Your task to perform on an android device: clear history in the chrome app Image 0: 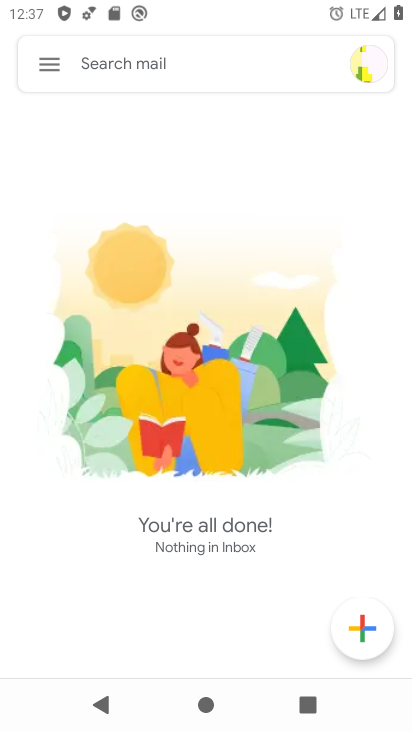
Step 0: press home button
Your task to perform on an android device: clear history in the chrome app Image 1: 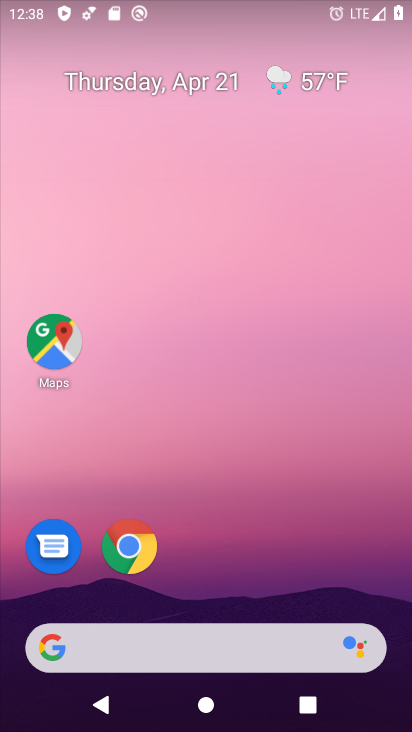
Step 1: click (125, 545)
Your task to perform on an android device: clear history in the chrome app Image 2: 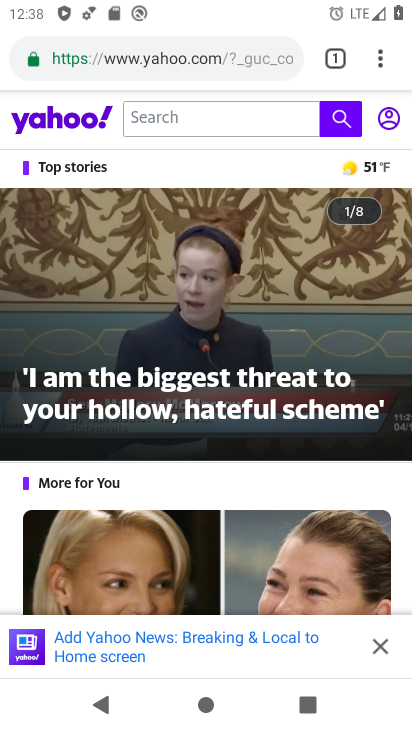
Step 2: click (370, 68)
Your task to perform on an android device: clear history in the chrome app Image 3: 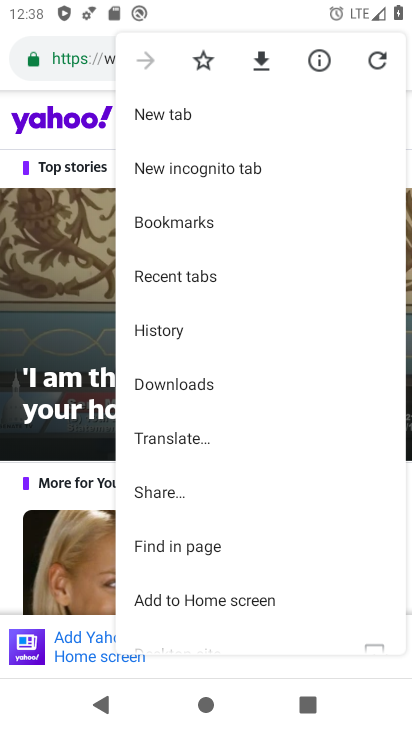
Step 3: click (183, 322)
Your task to perform on an android device: clear history in the chrome app Image 4: 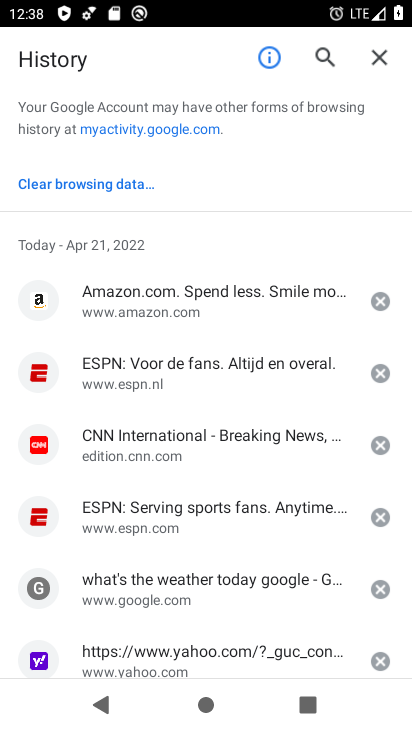
Step 4: click (72, 180)
Your task to perform on an android device: clear history in the chrome app Image 5: 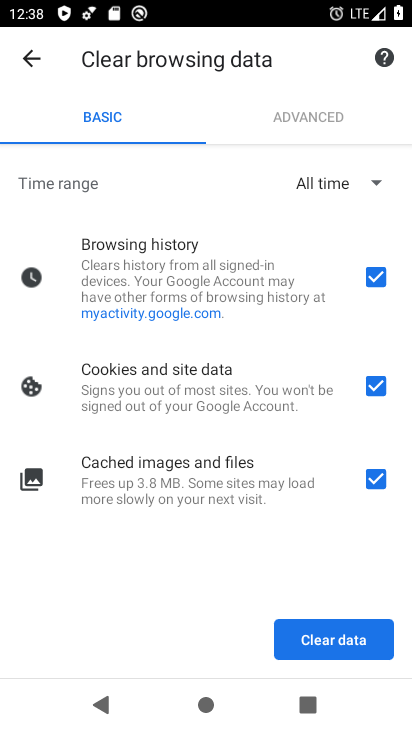
Step 5: click (353, 632)
Your task to perform on an android device: clear history in the chrome app Image 6: 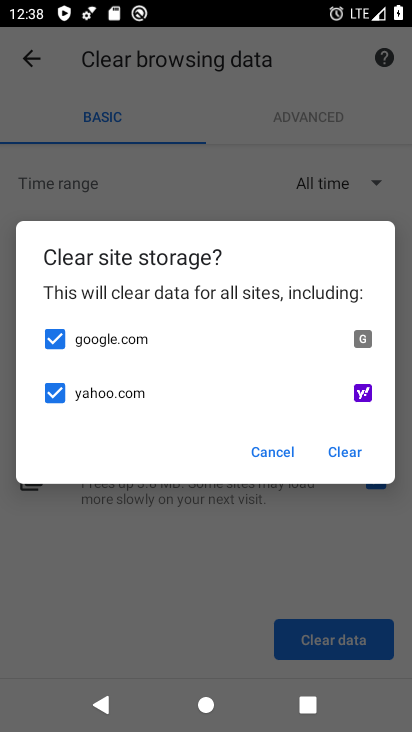
Step 6: click (337, 444)
Your task to perform on an android device: clear history in the chrome app Image 7: 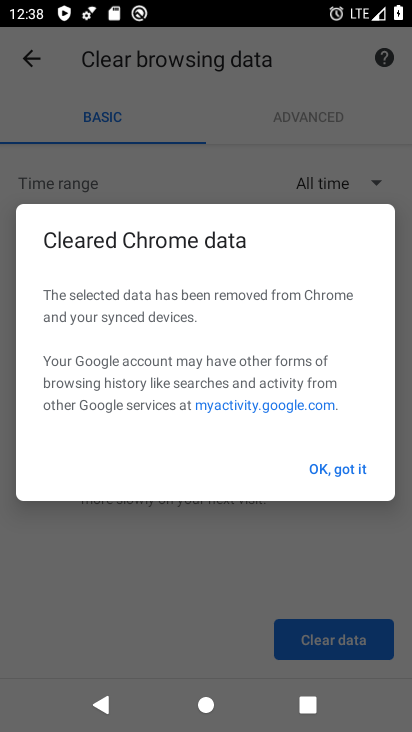
Step 7: click (332, 470)
Your task to perform on an android device: clear history in the chrome app Image 8: 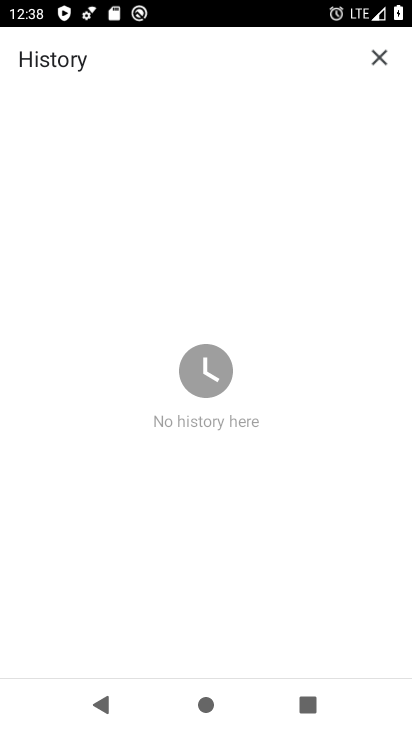
Step 8: task complete